Your task to perform on an android device: turn off location history Image 0: 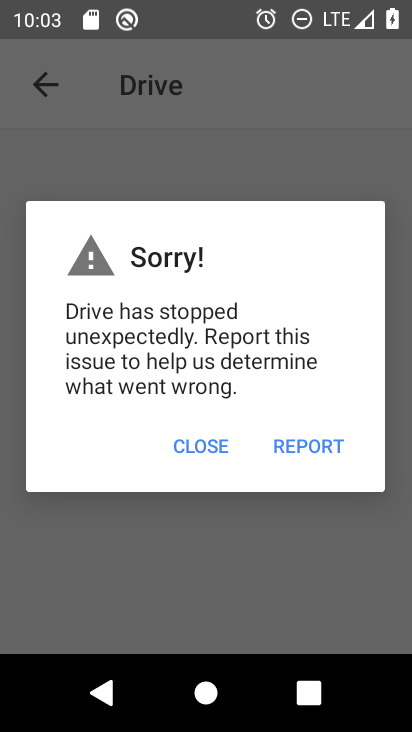
Step 0: press home button
Your task to perform on an android device: turn off location history Image 1: 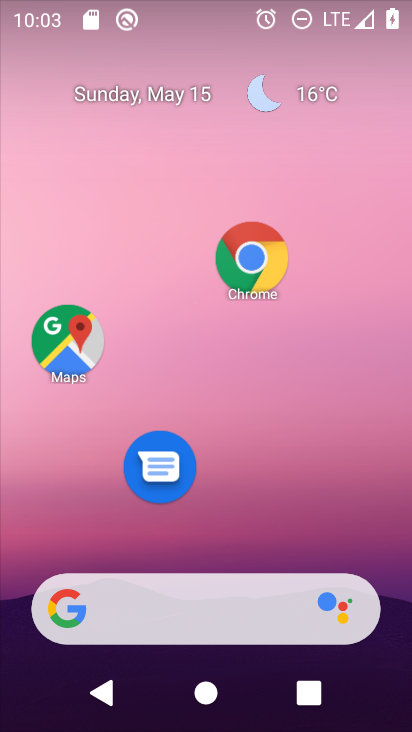
Step 1: drag from (257, 516) to (270, 90)
Your task to perform on an android device: turn off location history Image 2: 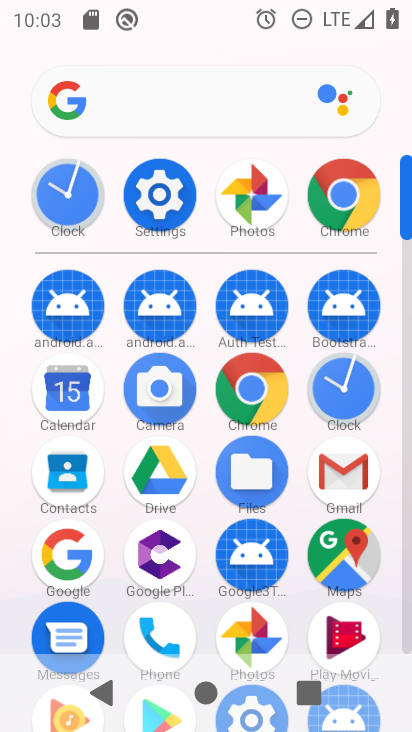
Step 2: click (170, 186)
Your task to perform on an android device: turn off location history Image 3: 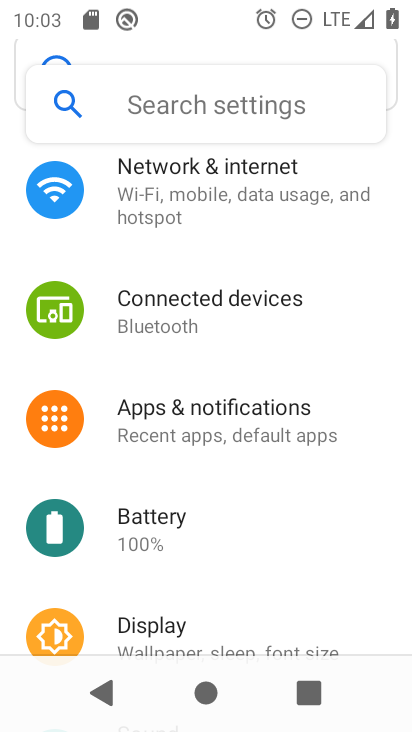
Step 3: drag from (159, 597) to (229, 102)
Your task to perform on an android device: turn off location history Image 4: 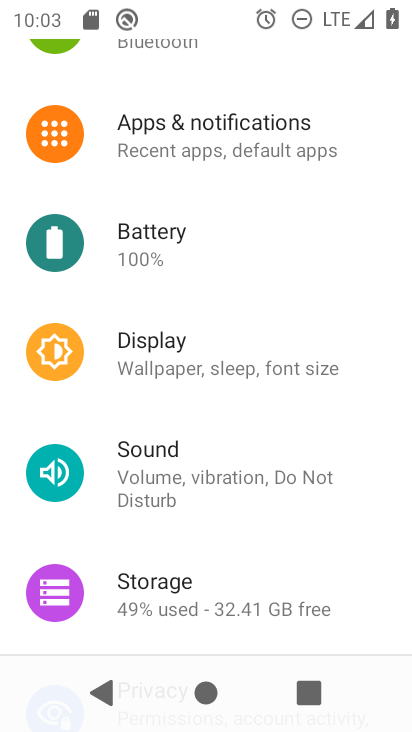
Step 4: drag from (256, 306) to (257, 192)
Your task to perform on an android device: turn off location history Image 5: 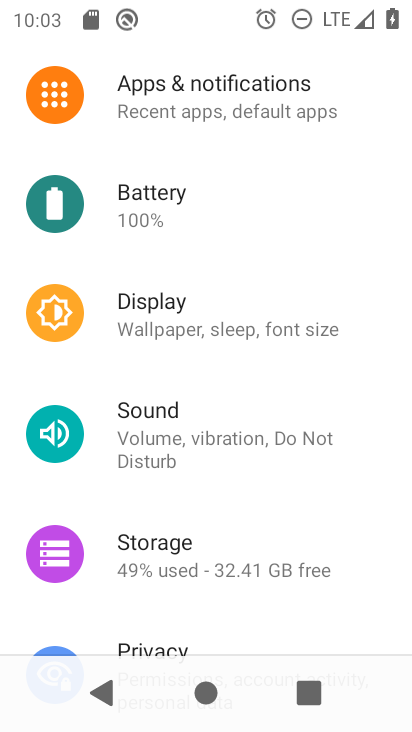
Step 5: drag from (150, 614) to (225, 116)
Your task to perform on an android device: turn off location history Image 6: 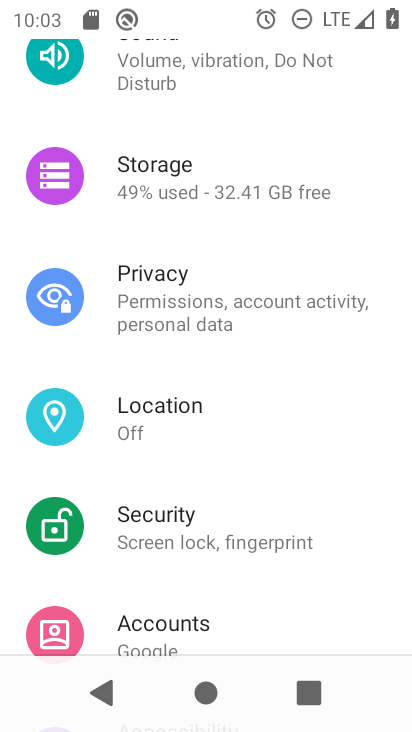
Step 6: click (178, 393)
Your task to perform on an android device: turn off location history Image 7: 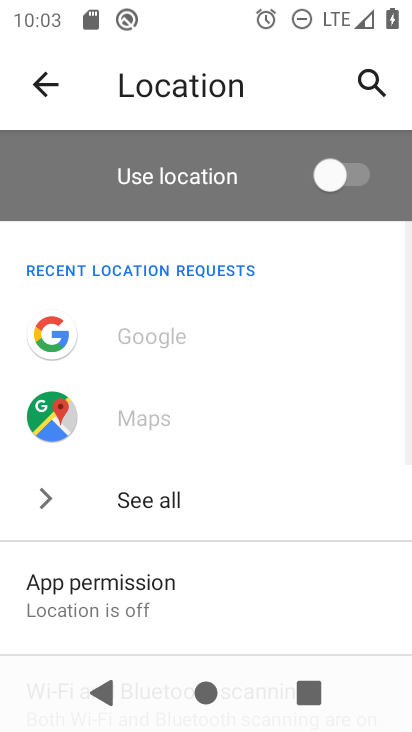
Step 7: drag from (170, 621) to (260, 106)
Your task to perform on an android device: turn off location history Image 8: 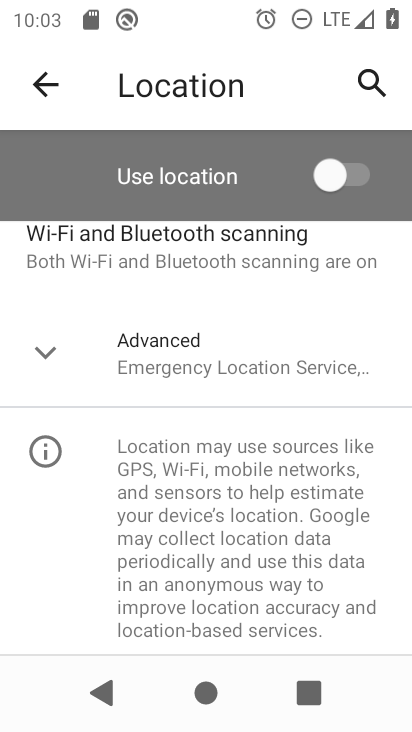
Step 8: click (154, 382)
Your task to perform on an android device: turn off location history Image 9: 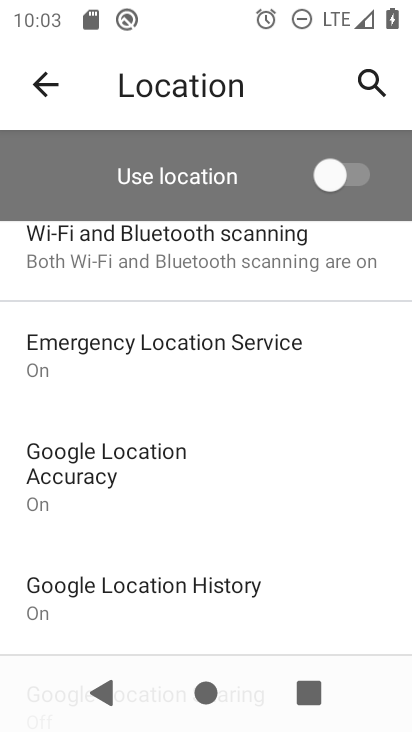
Step 9: click (192, 616)
Your task to perform on an android device: turn off location history Image 10: 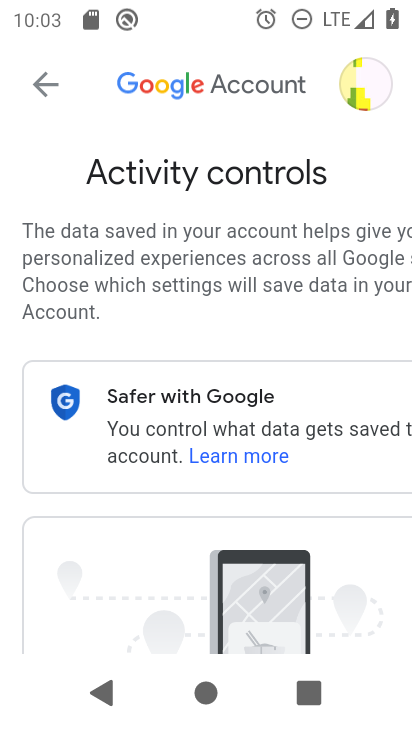
Step 10: drag from (104, 580) to (136, 74)
Your task to perform on an android device: turn off location history Image 11: 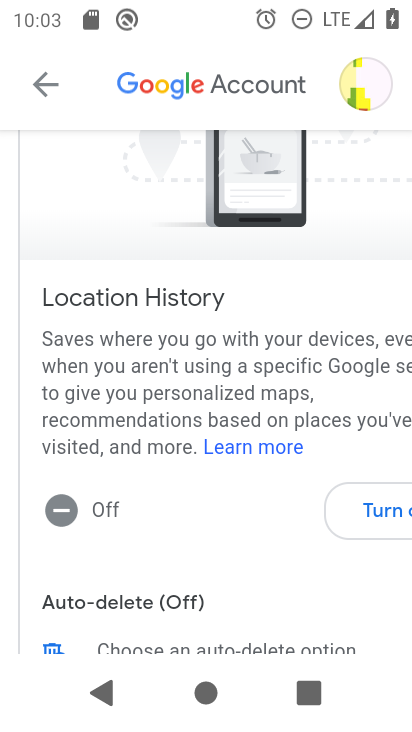
Step 11: click (361, 530)
Your task to perform on an android device: turn off location history Image 12: 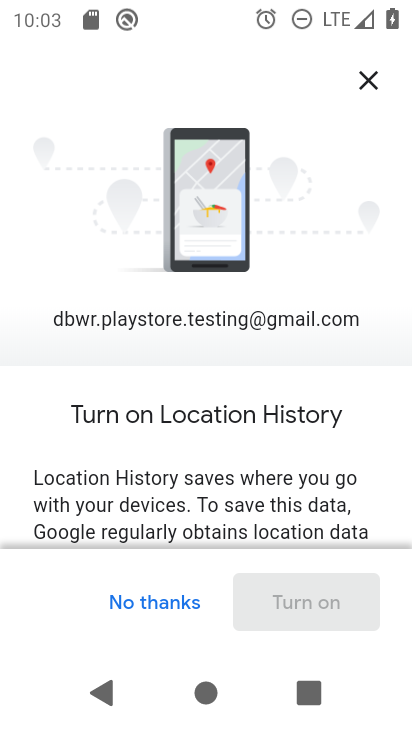
Step 12: click (154, 599)
Your task to perform on an android device: turn off location history Image 13: 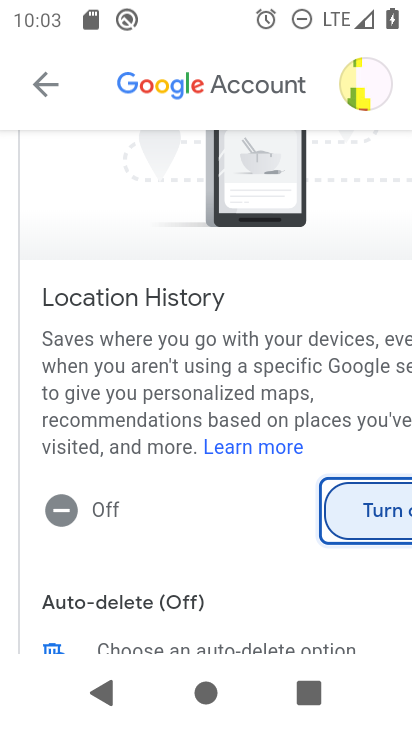
Step 13: task complete